Your task to perform on an android device: Open the Play Movies app and select the watchlist tab. Image 0: 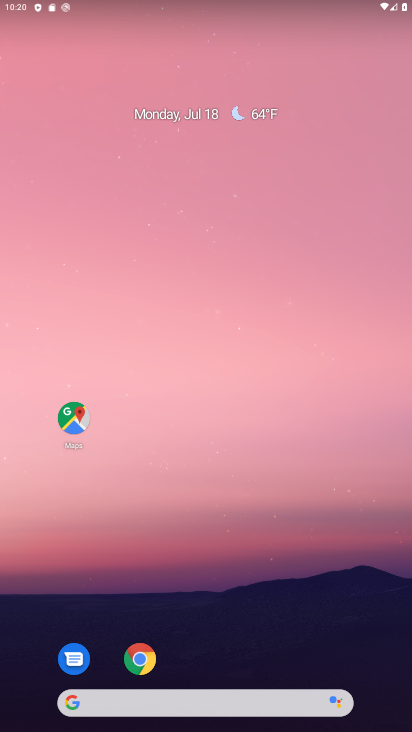
Step 0: drag from (205, 659) to (204, 174)
Your task to perform on an android device: Open the Play Movies app and select the watchlist tab. Image 1: 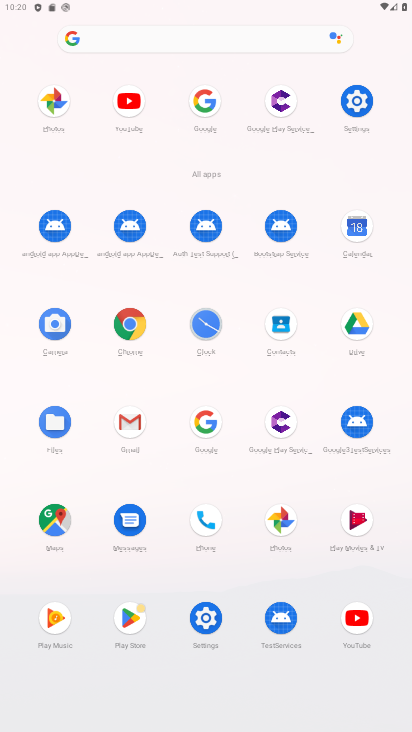
Step 1: click (356, 523)
Your task to perform on an android device: Open the Play Movies app and select the watchlist tab. Image 2: 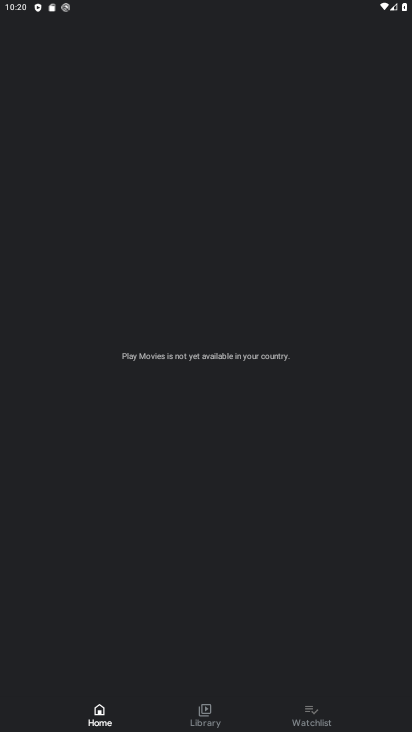
Step 2: click (300, 713)
Your task to perform on an android device: Open the Play Movies app and select the watchlist tab. Image 3: 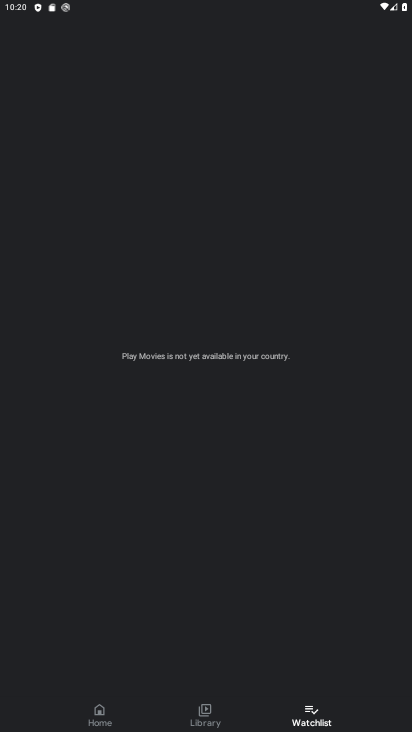
Step 3: task complete